Your task to perform on an android device: turn on javascript in the chrome app Image 0: 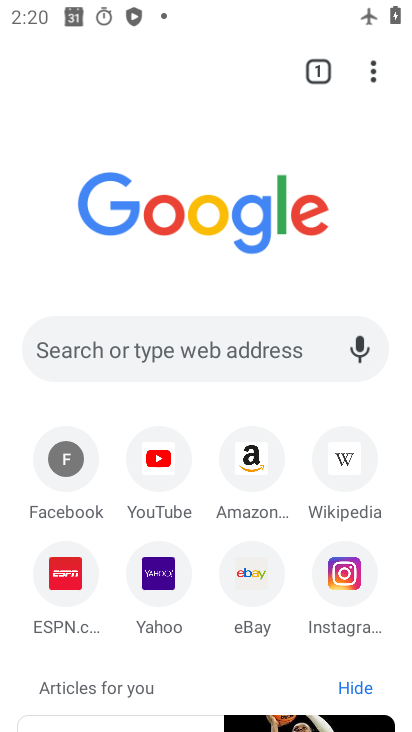
Step 0: press back button
Your task to perform on an android device: turn on javascript in the chrome app Image 1: 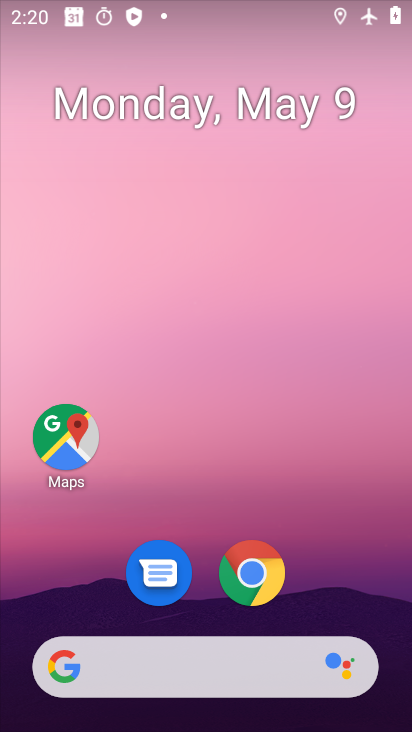
Step 1: drag from (336, 664) to (246, 53)
Your task to perform on an android device: turn on javascript in the chrome app Image 2: 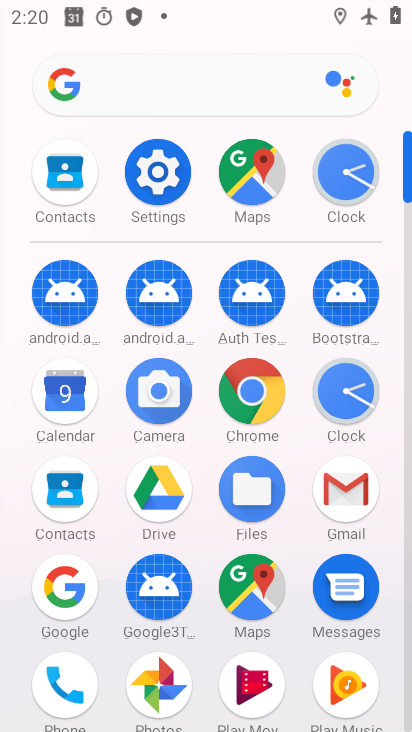
Step 2: click (152, 171)
Your task to perform on an android device: turn on javascript in the chrome app Image 3: 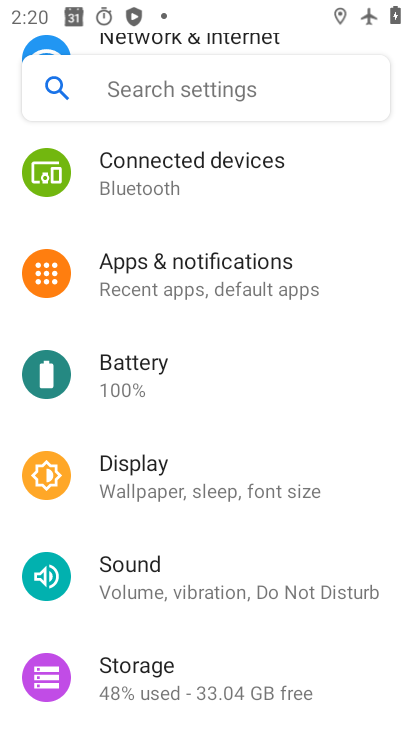
Step 3: press home button
Your task to perform on an android device: turn on javascript in the chrome app Image 4: 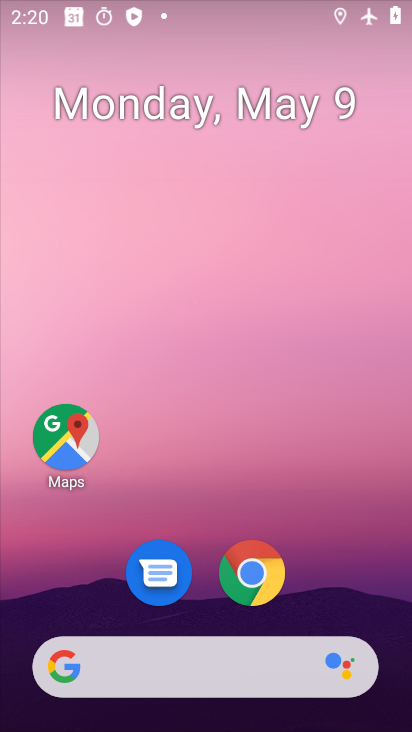
Step 4: drag from (338, 585) to (258, 116)
Your task to perform on an android device: turn on javascript in the chrome app Image 5: 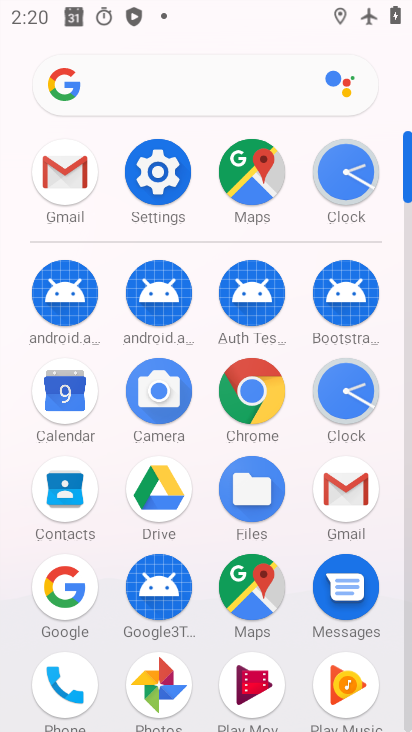
Step 5: click (246, 387)
Your task to perform on an android device: turn on javascript in the chrome app Image 6: 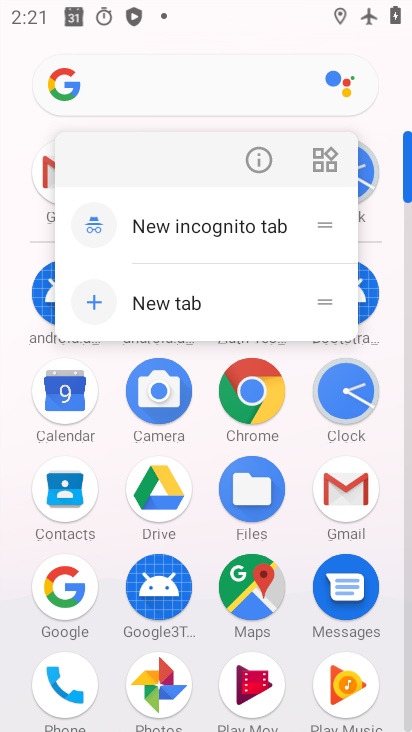
Step 6: click (244, 386)
Your task to perform on an android device: turn on javascript in the chrome app Image 7: 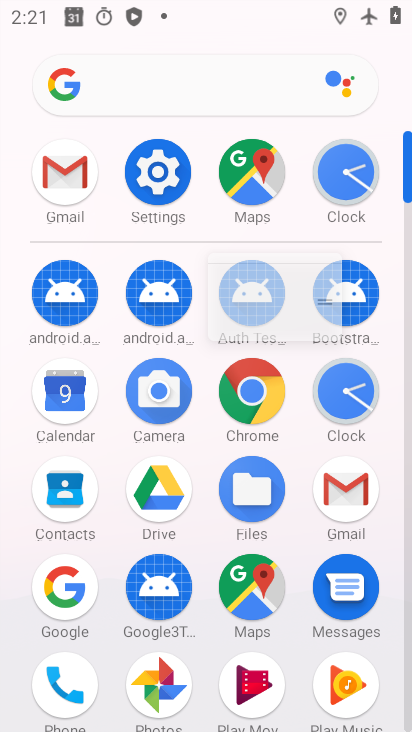
Step 7: click (244, 386)
Your task to perform on an android device: turn on javascript in the chrome app Image 8: 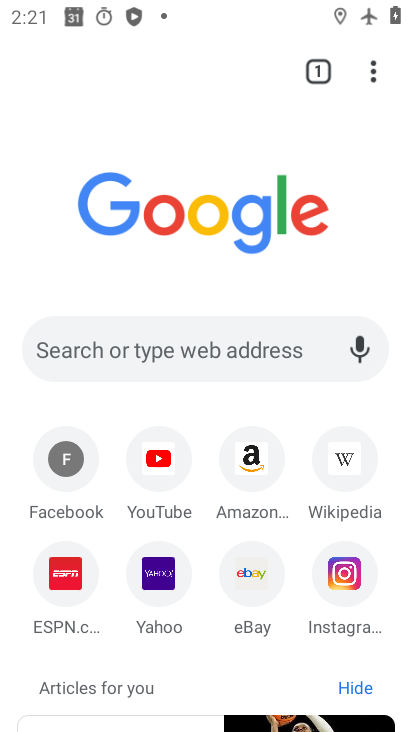
Step 8: click (368, 69)
Your task to perform on an android device: turn on javascript in the chrome app Image 9: 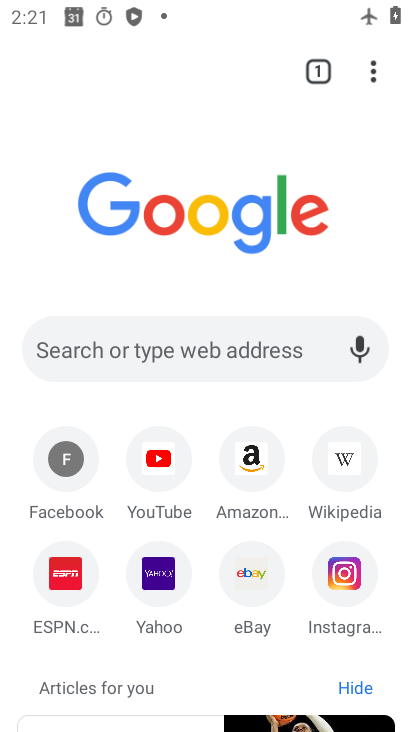
Step 9: click (369, 82)
Your task to perform on an android device: turn on javascript in the chrome app Image 10: 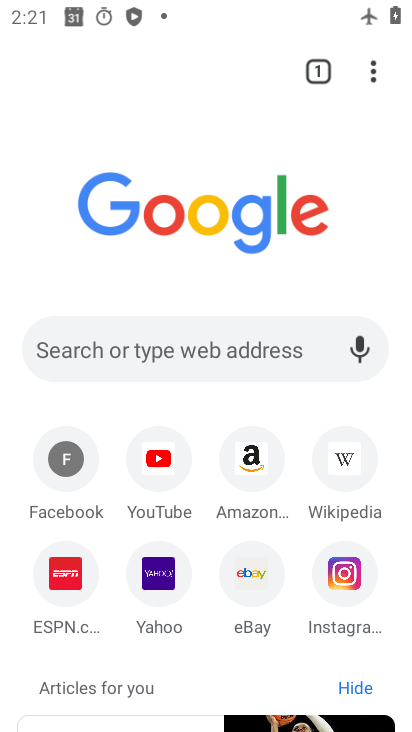
Step 10: drag from (372, 66) to (96, 602)
Your task to perform on an android device: turn on javascript in the chrome app Image 11: 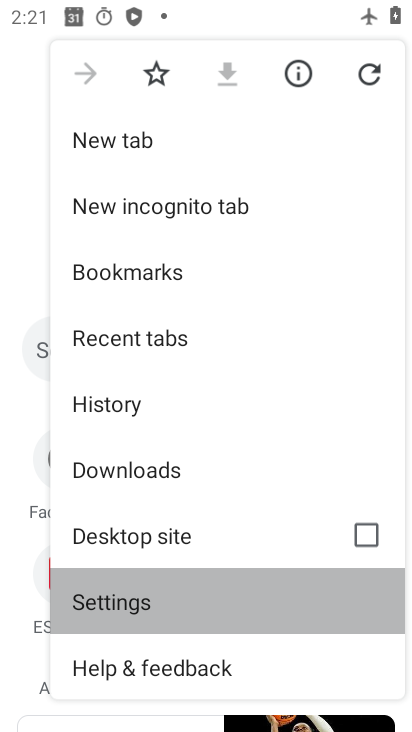
Step 11: click (95, 602)
Your task to perform on an android device: turn on javascript in the chrome app Image 12: 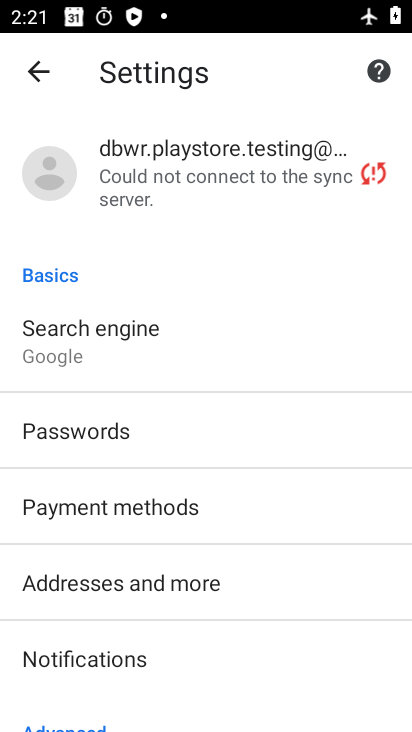
Step 12: drag from (133, 660) to (161, 423)
Your task to perform on an android device: turn on javascript in the chrome app Image 13: 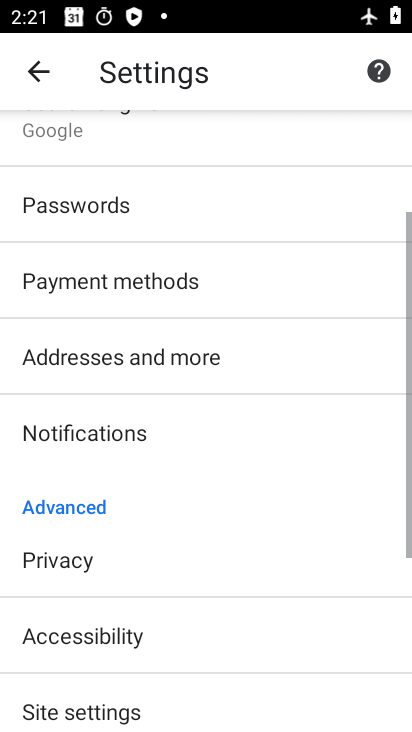
Step 13: drag from (91, 678) to (173, 281)
Your task to perform on an android device: turn on javascript in the chrome app Image 14: 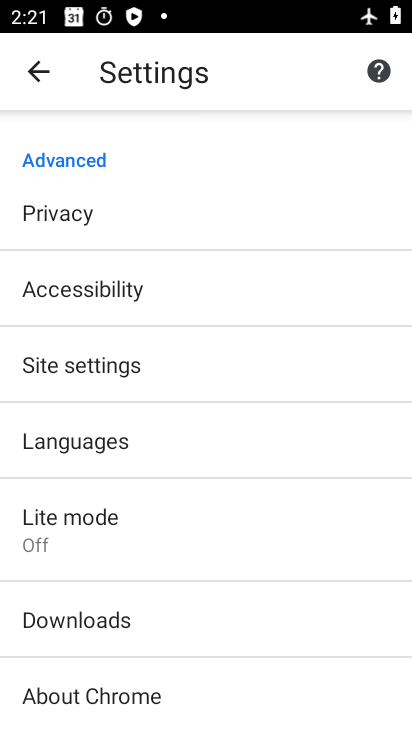
Step 14: click (71, 368)
Your task to perform on an android device: turn on javascript in the chrome app Image 15: 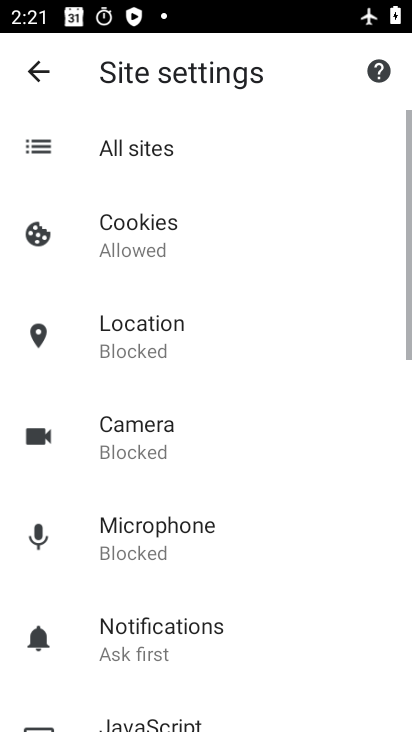
Step 15: drag from (227, 622) to (254, 108)
Your task to perform on an android device: turn on javascript in the chrome app Image 16: 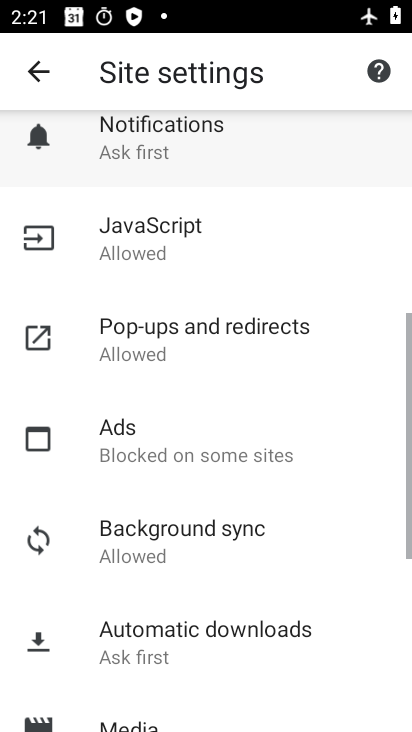
Step 16: drag from (235, 498) to (253, 145)
Your task to perform on an android device: turn on javascript in the chrome app Image 17: 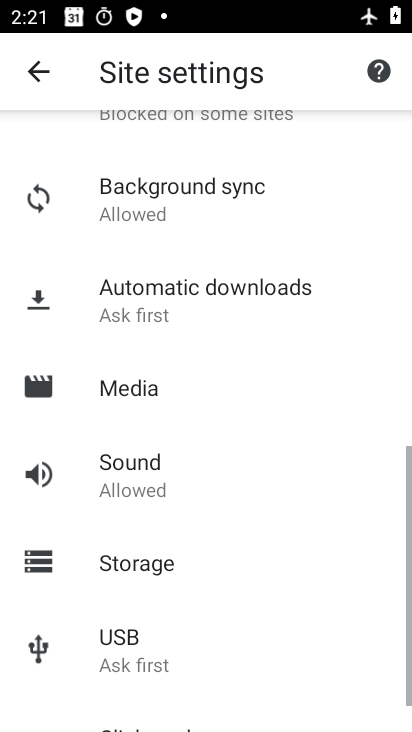
Step 17: drag from (277, 427) to (293, 82)
Your task to perform on an android device: turn on javascript in the chrome app Image 18: 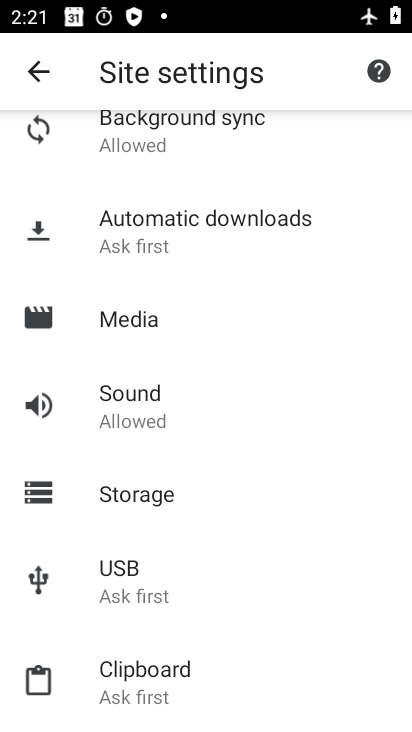
Step 18: click (192, 138)
Your task to perform on an android device: turn on javascript in the chrome app Image 19: 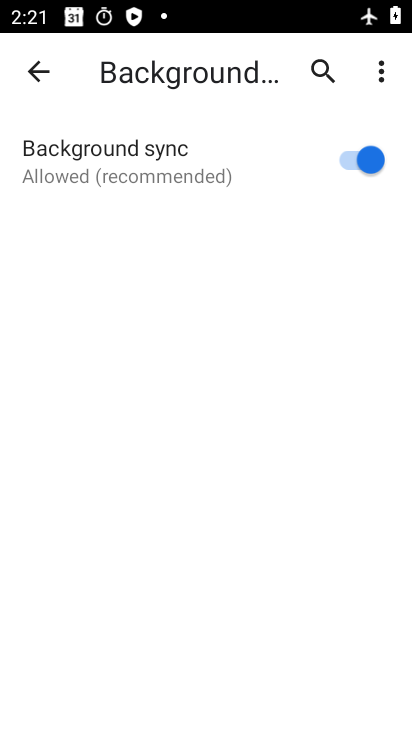
Step 19: click (85, 517)
Your task to perform on an android device: turn on javascript in the chrome app Image 20: 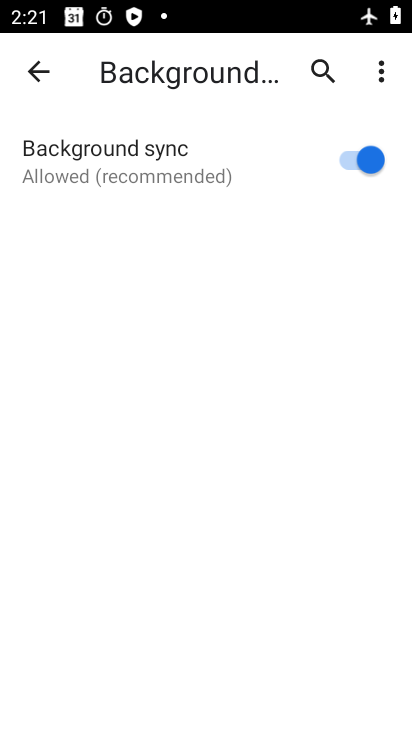
Step 20: click (30, 61)
Your task to perform on an android device: turn on javascript in the chrome app Image 21: 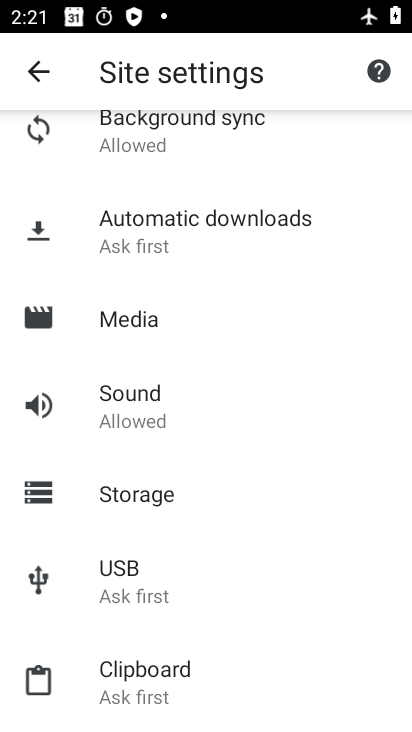
Step 21: drag from (179, 273) to (217, 494)
Your task to perform on an android device: turn on javascript in the chrome app Image 22: 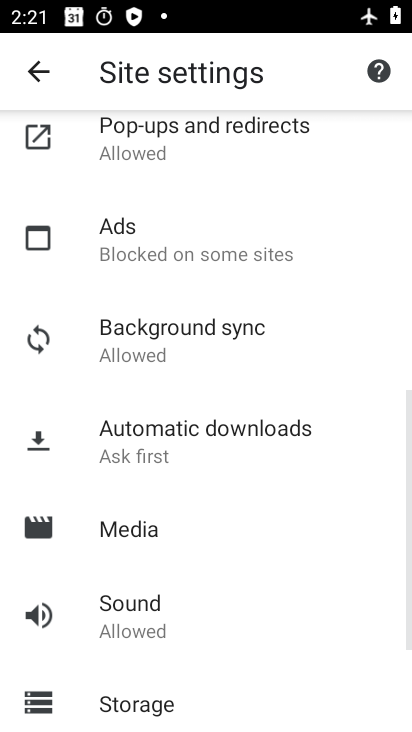
Step 22: drag from (161, 214) to (214, 547)
Your task to perform on an android device: turn on javascript in the chrome app Image 23: 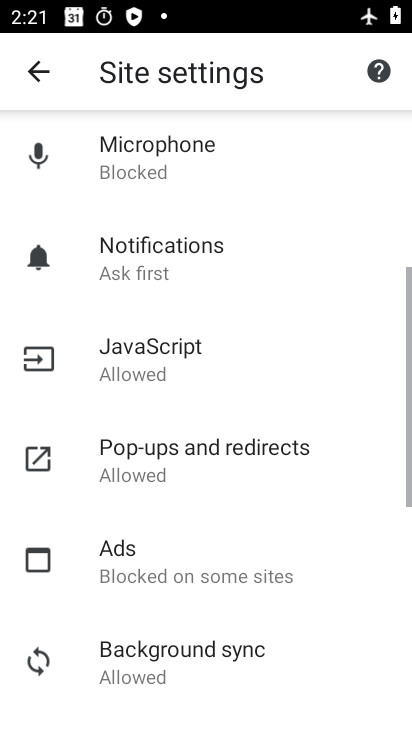
Step 23: drag from (153, 256) to (181, 582)
Your task to perform on an android device: turn on javascript in the chrome app Image 24: 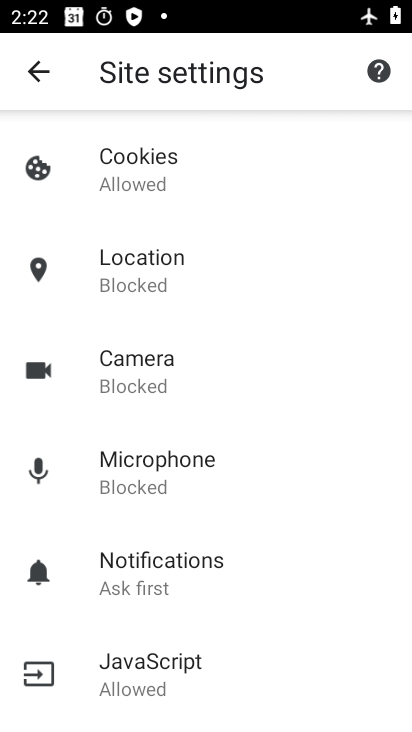
Step 24: click (133, 664)
Your task to perform on an android device: turn on javascript in the chrome app Image 25: 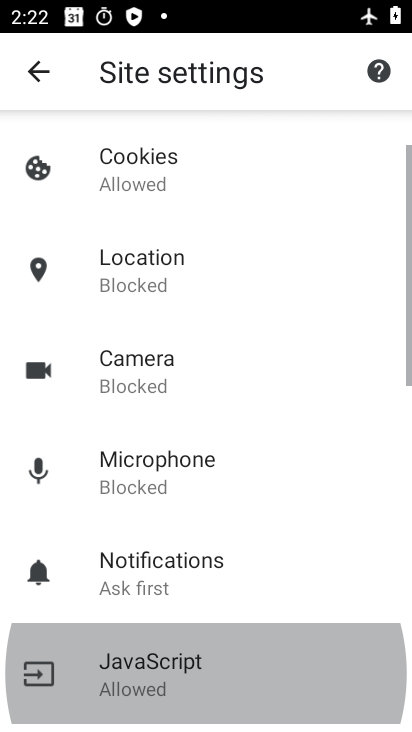
Step 25: click (131, 668)
Your task to perform on an android device: turn on javascript in the chrome app Image 26: 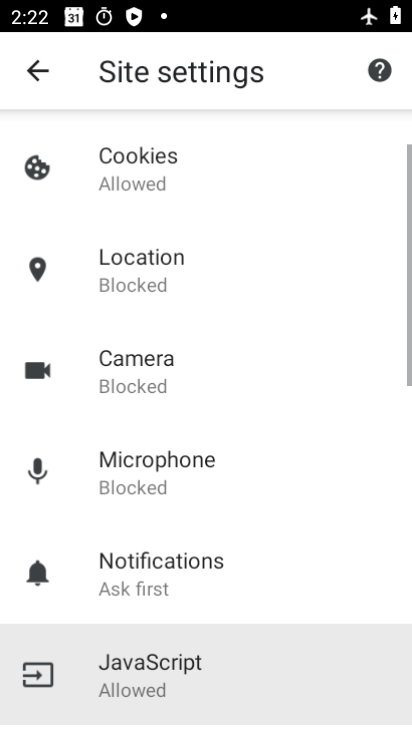
Step 26: click (131, 668)
Your task to perform on an android device: turn on javascript in the chrome app Image 27: 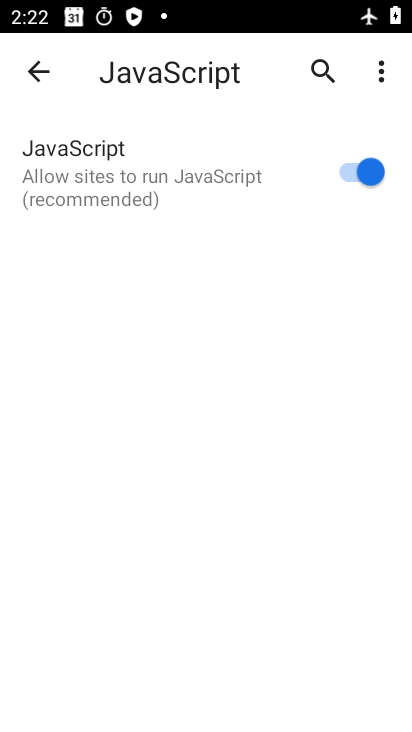
Step 27: task complete